Your task to perform on an android device: install app "Spotify: Music and Podcasts" Image 0: 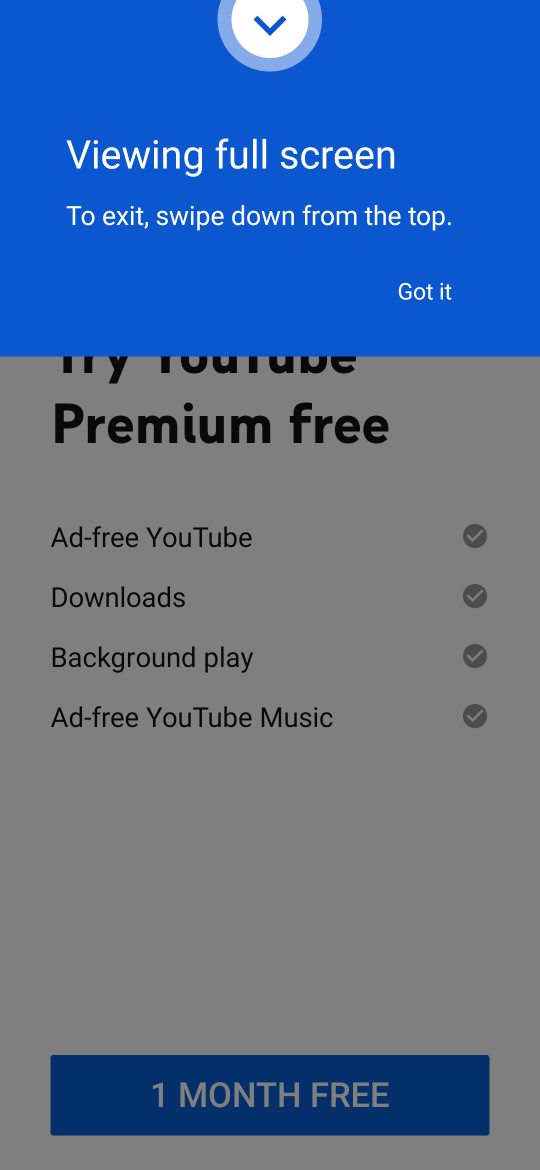
Step 0: press home button
Your task to perform on an android device: install app "Spotify: Music and Podcasts" Image 1: 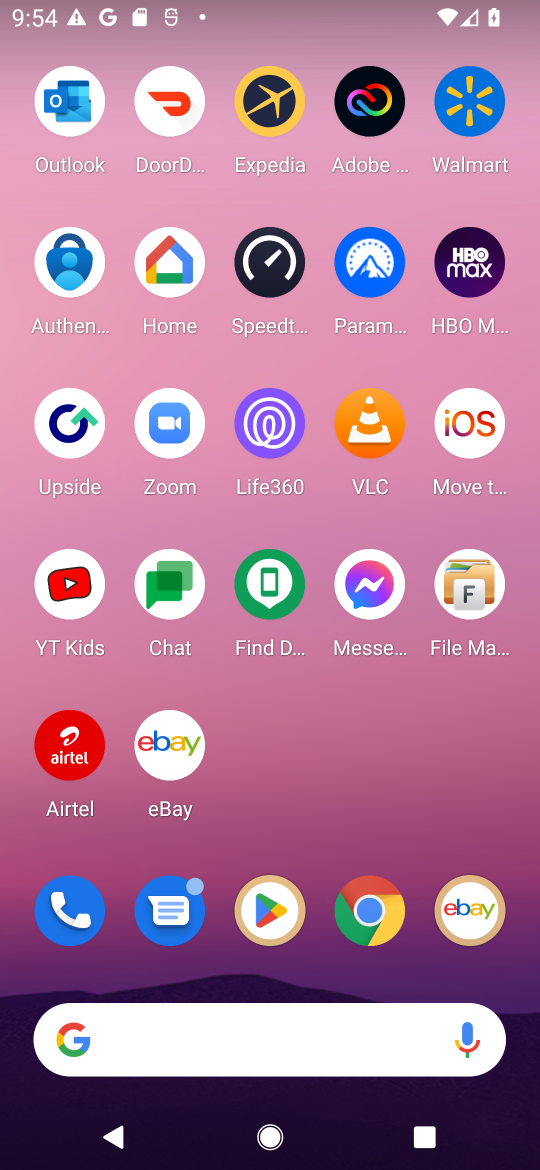
Step 1: click (266, 933)
Your task to perform on an android device: install app "Spotify: Music and Podcasts" Image 2: 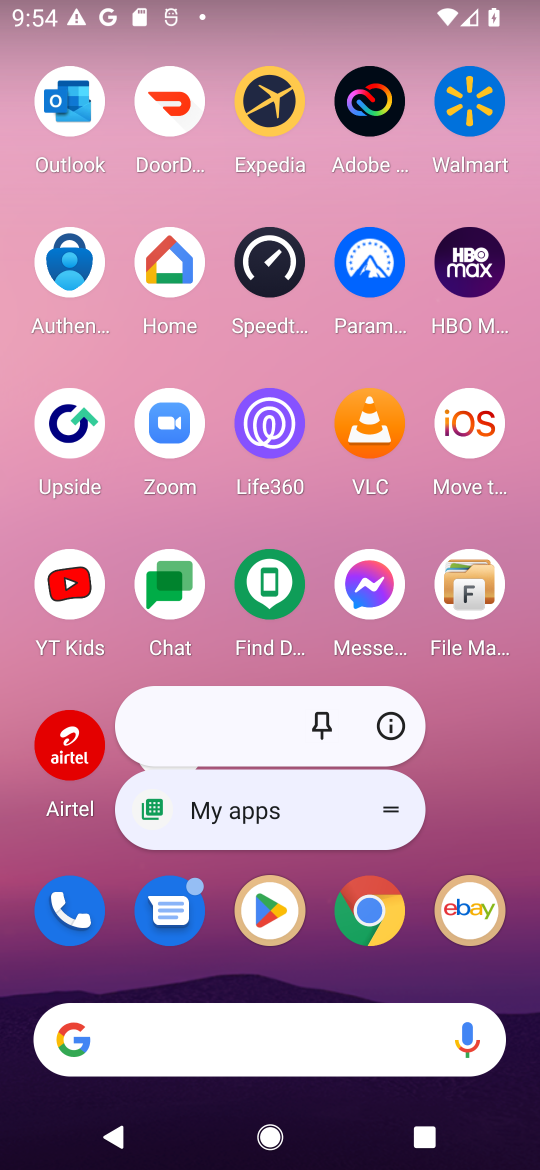
Step 2: click (266, 933)
Your task to perform on an android device: install app "Spotify: Music and Podcasts" Image 3: 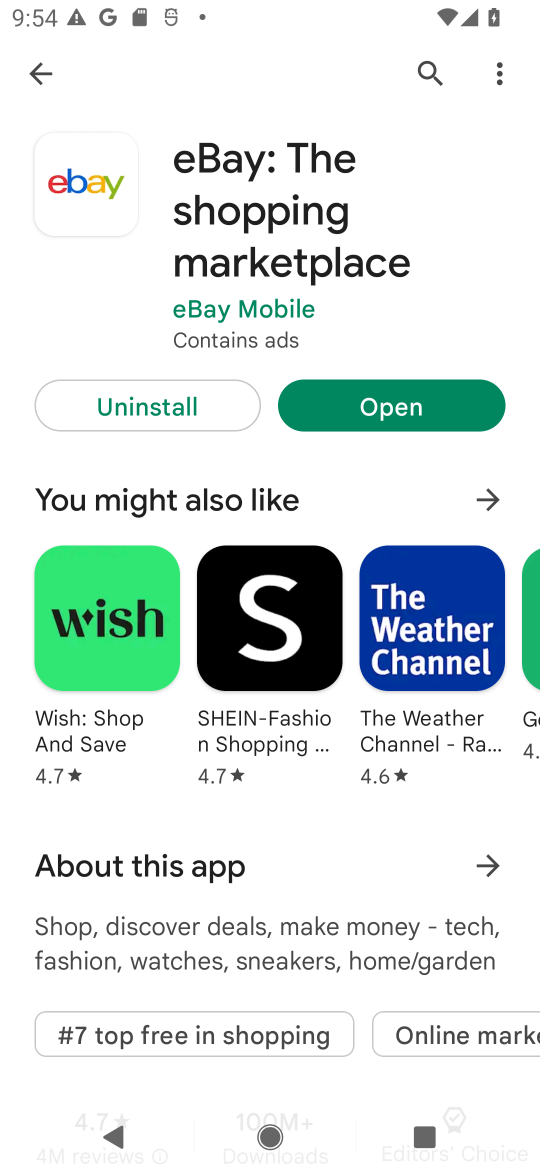
Step 3: click (432, 74)
Your task to perform on an android device: install app "Spotify: Music and Podcasts" Image 4: 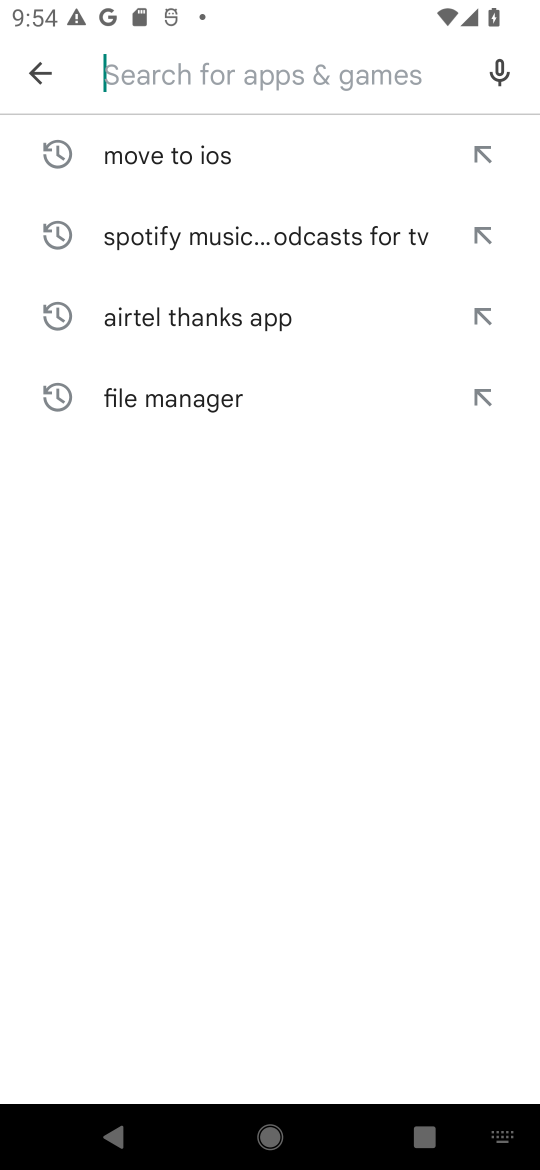
Step 4: type "Spotify: Music and Podcasts"
Your task to perform on an android device: install app "Spotify: Music and Podcasts" Image 5: 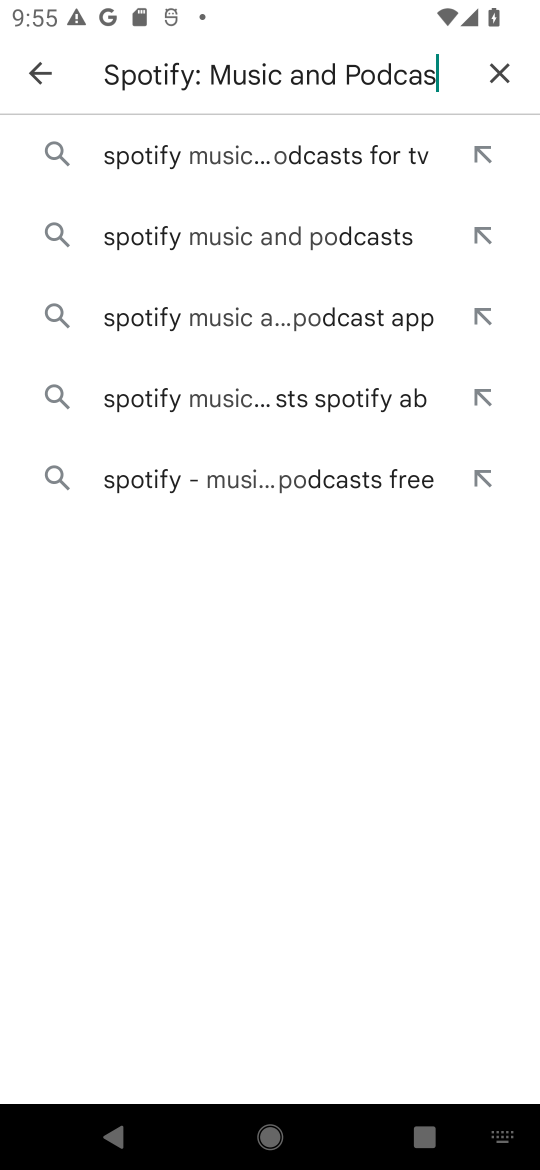
Step 5: type ""
Your task to perform on an android device: install app "Spotify: Music and Podcasts" Image 6: 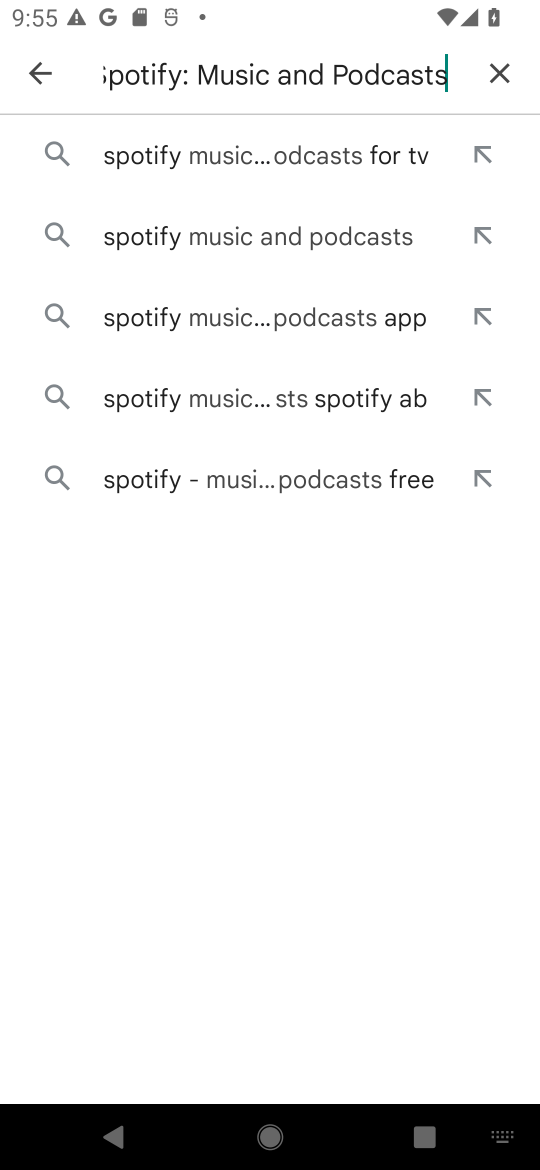
Step 6: click (245, 152)
Your task to perform on an android device: install app "Spotify: Music and Podcasts" Image 7: 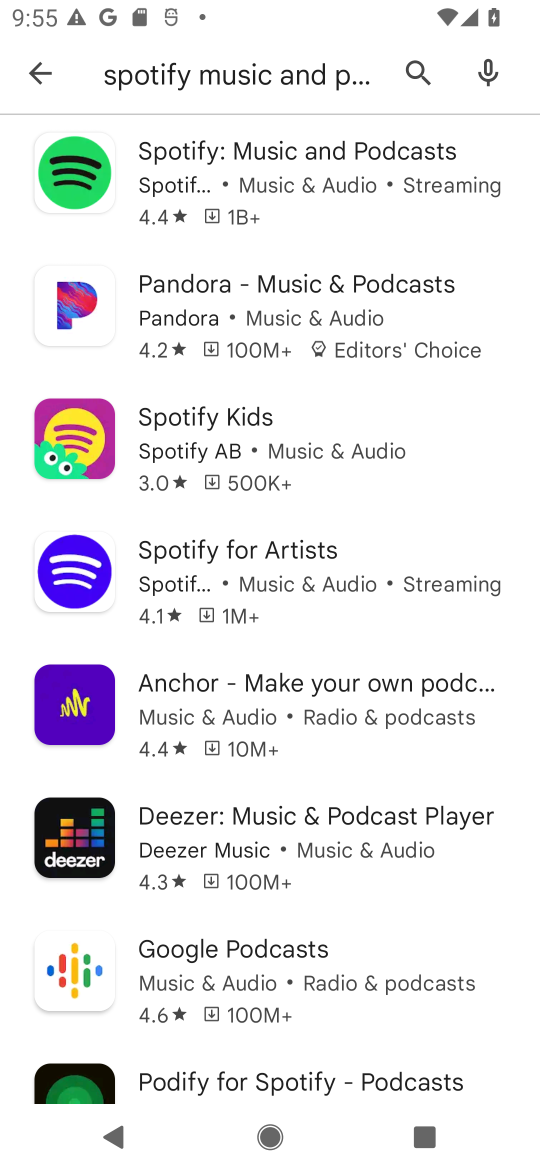
Step 7: click (263, 175)
Your task to perform on an android device: install app "Spotify: Music and Podcasts" Image 8: 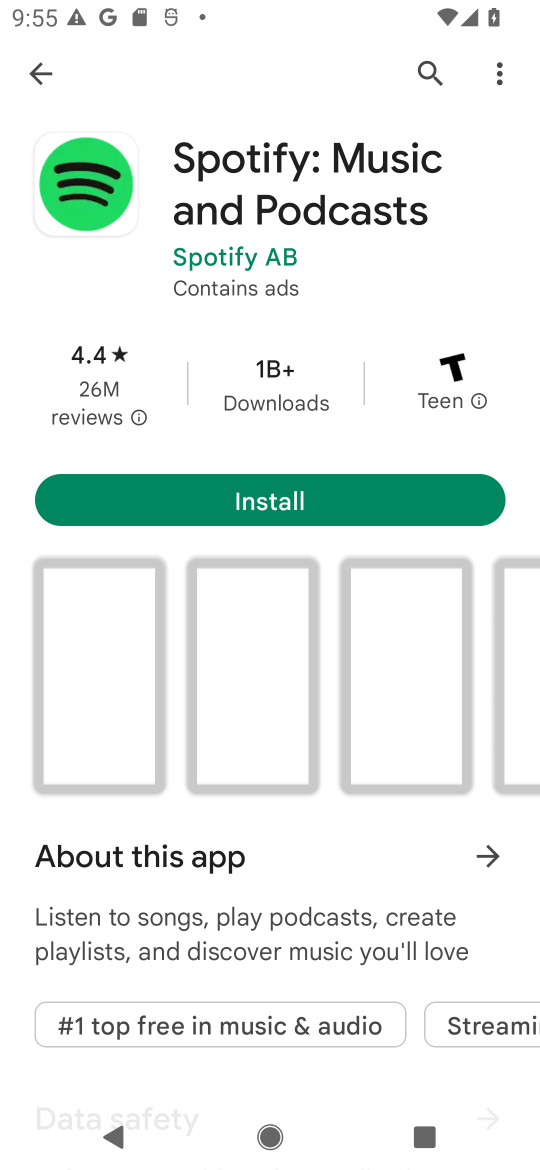
Step 8: click (309, 495)
Your task to perform on an android device: install app "Spotify: Music and Podcasts" Image 9: 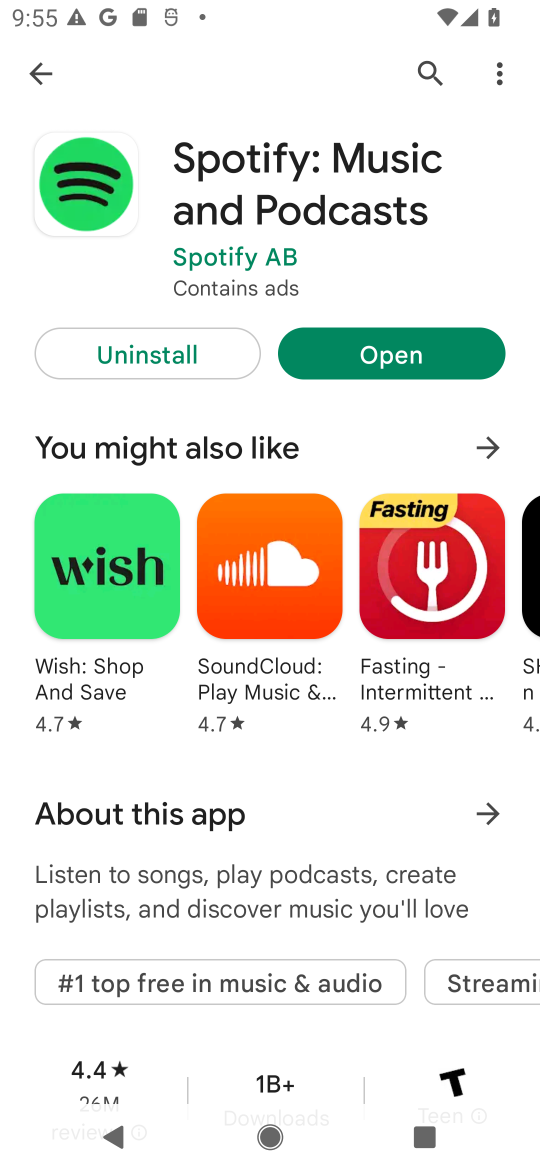
Step 9: task complete